Your task to perform on an android device: Go to Yahoo.com Image 0: 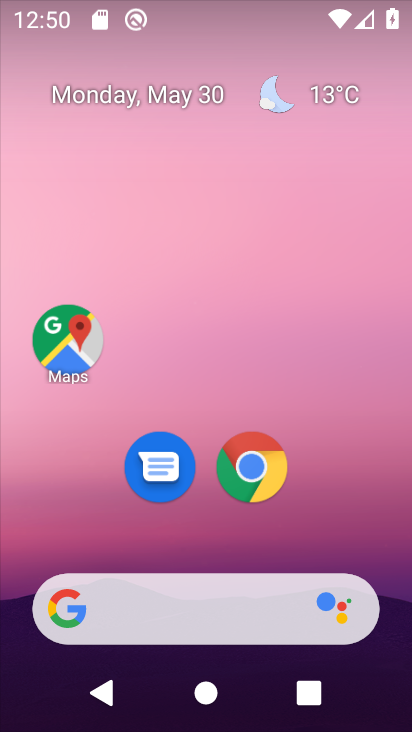
Step 0: click (249, 488)
Your task to perform on an android device: Go to Yahoo.com Image 1: 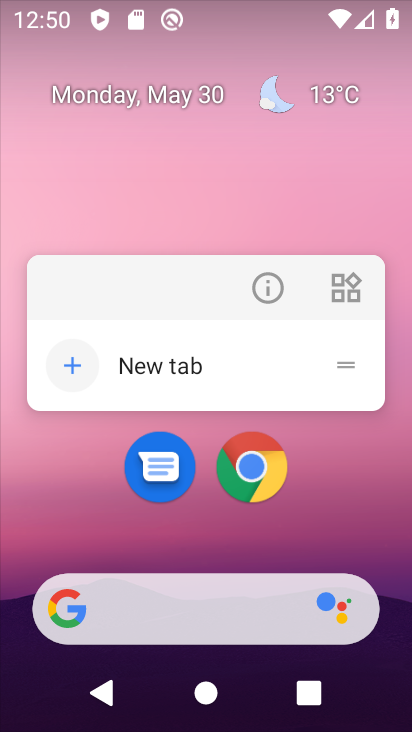
Step 1: click (257, 489)
Your task to perform on an android device: Go to Yahoo.com Image 2: 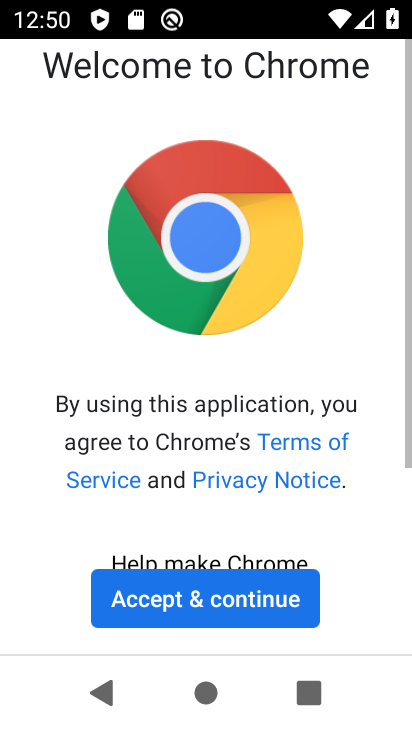
Step 2: click (259, 593)
Your task to perform on an android device: Go to Yahoo.com Image 3: 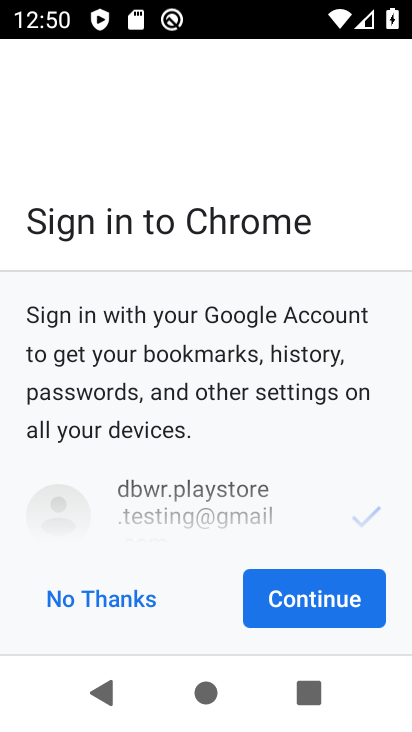
Step 3: click (310, 611)
Your task to perform on an android device: Go to Yahoo.com Image 4: 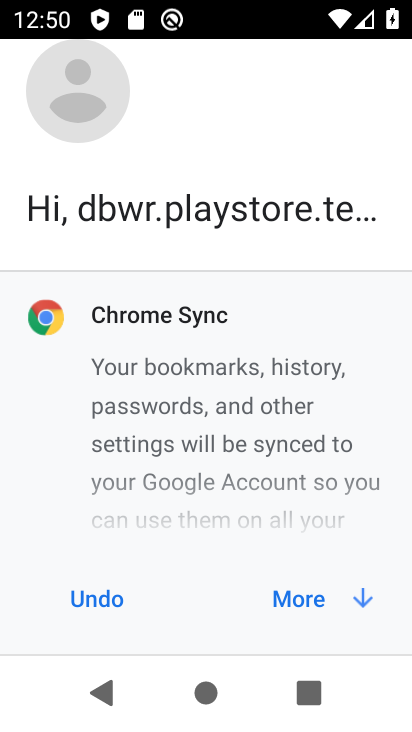
Step 4: click (308, 615)
Your task to perform on an android device: Go to Yahoo.com Image 5: 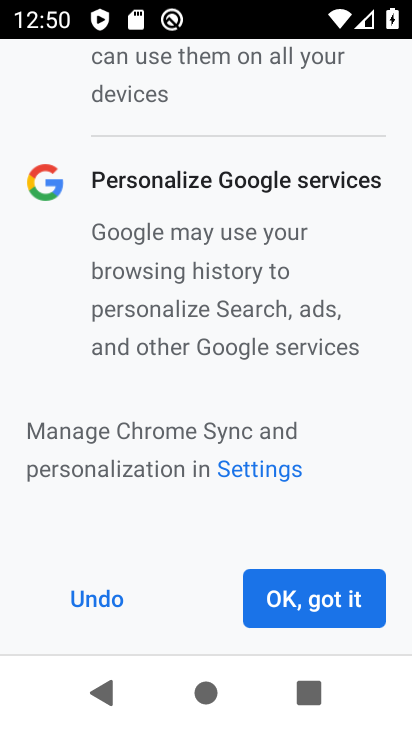
Step 5: click (308, 610)
Your task to perform on an android device: Go to Yahoo.com Image 6: 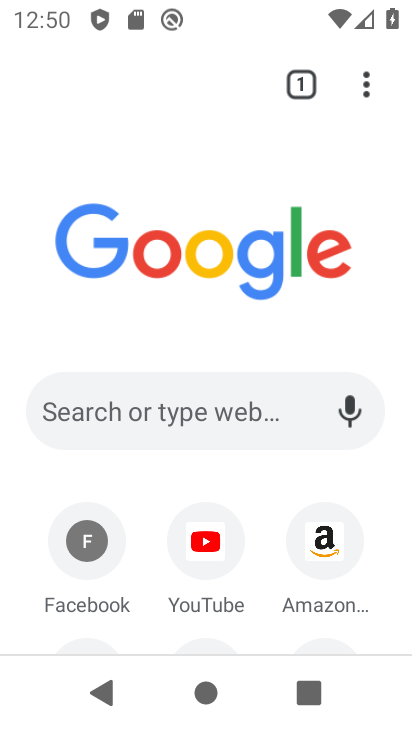
Step 6: drag from (147, 506) to (151, 235)
Your task to perform on an android device: Go to Yahoo.com Image 7: 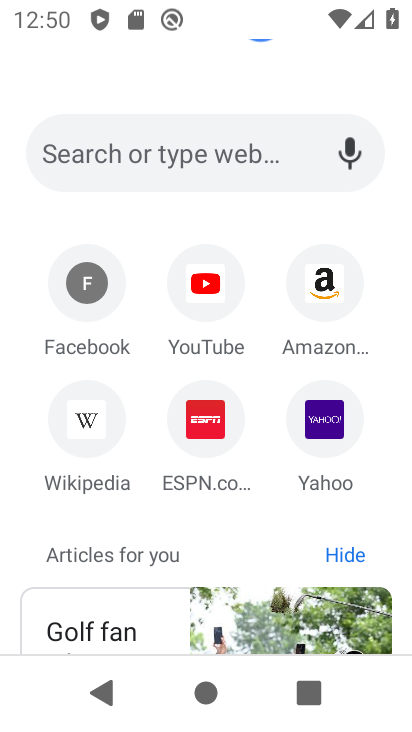
Step 7: click (332, 417)
Your task to perform on an android device: Go to Yahoo.com Image 8: 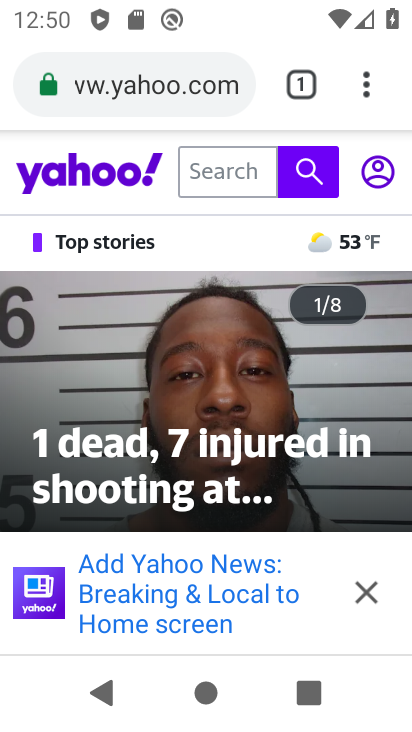
Step 8: task complete